Your task to perform on an android device: see creations saved in the google photos Image 0: 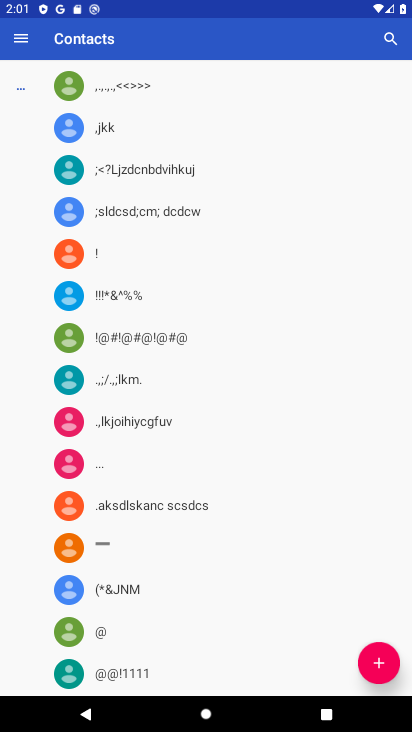
Step 0: press home button
Your task to perform on an android device: see creations saved in the google photos Image 1: 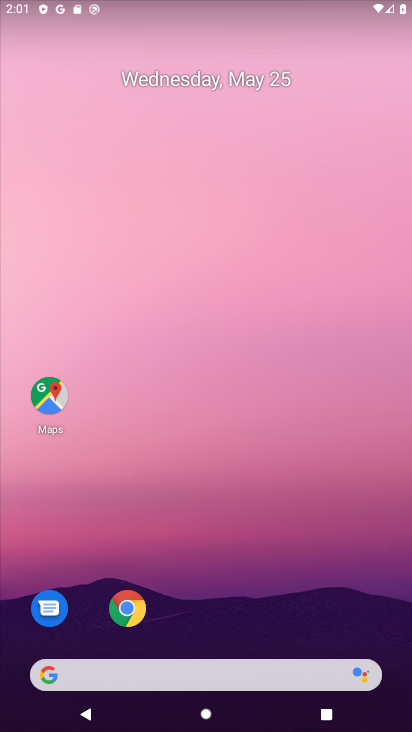
Step 1: drag from (182, 656) to (331, 108)
Your task to perform on an android device: see creations saved in the google photos Image 2: 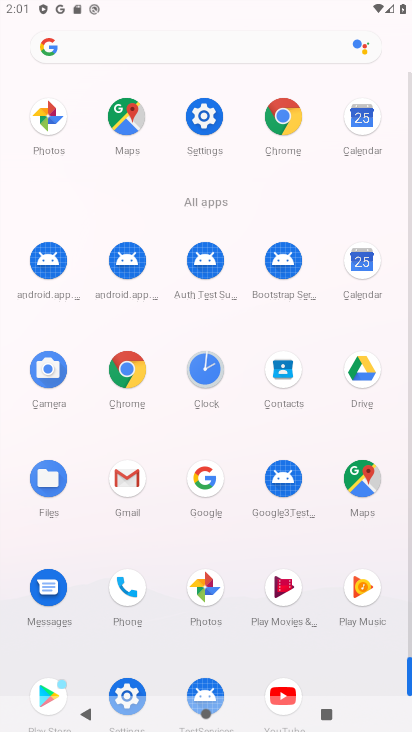
Step 2: click (64, 110)
Your task to perform on an android device: see creations saved in the google photos Image 3: 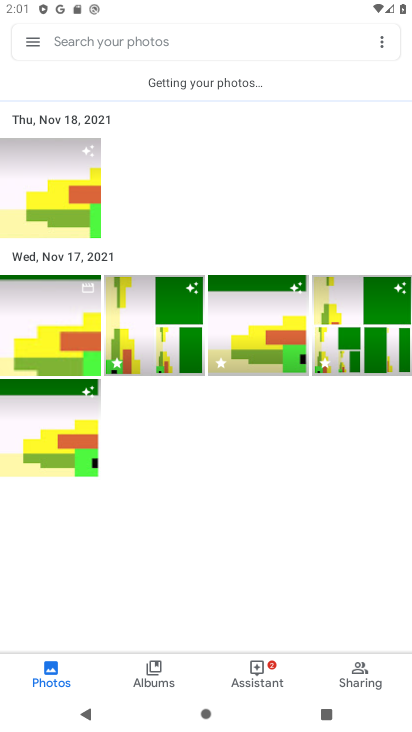
Step 3: click (143, 658)
Your task to perform on an android device: see creations saved in the google photos Image 4: 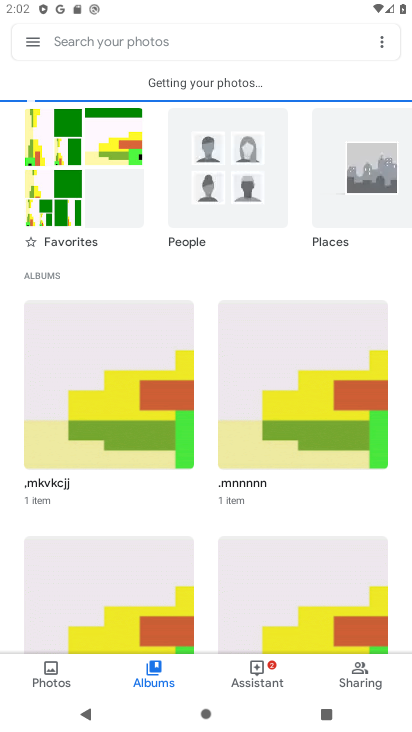
Step 4: task complete